Your task to perform on an android device: Open Reddit.com Image 0: 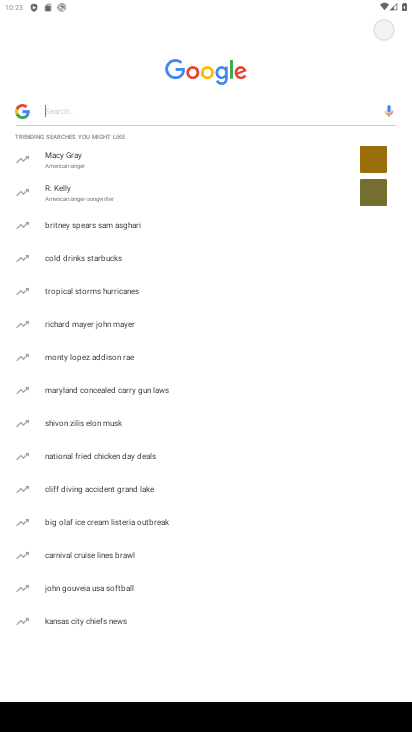
Step 0: press back button
Your task to perform on an android device: Open Reddit.com Image 1: 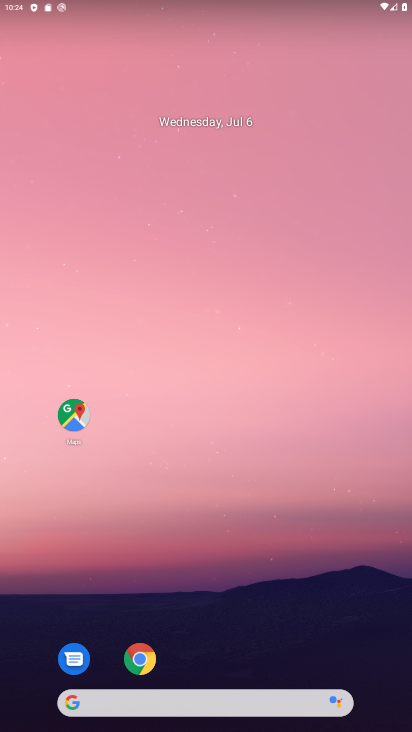
Step 1: click (146, 657)
Your task to perform on an android device: Open Reddit.com Image 2: 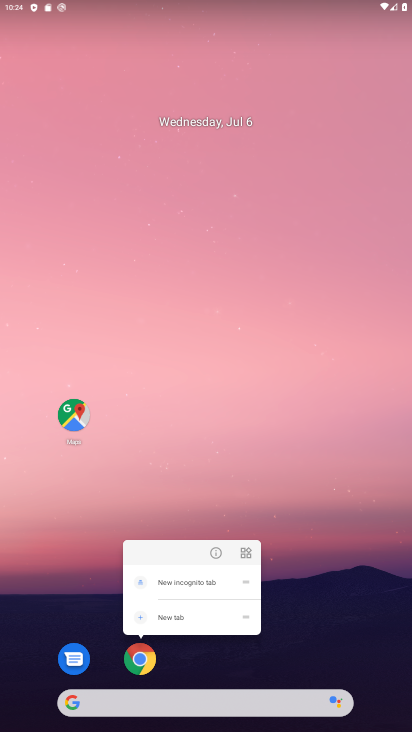
Step 2: click (151, 653)
Your task to perform on an android device: Open Reddit.com Image 3: 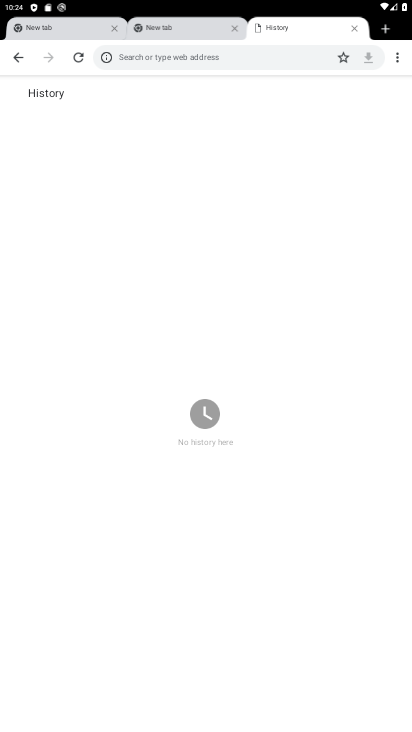
Step 3: press back button
Your task to perform on an android device: Open Reddit.com Image 4: 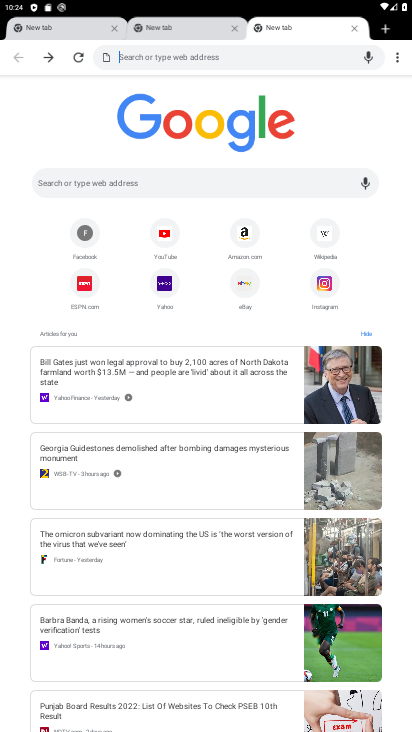
Step 4: click (98, 185)
Your task to perform on an android device: Open Reddit.com Image 5: 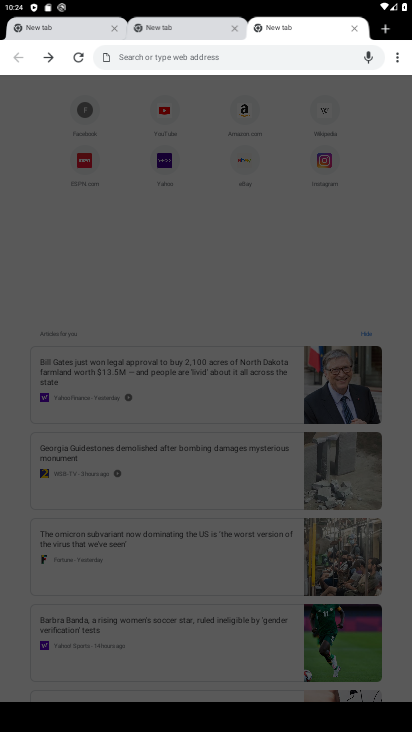
Step 5: type "reddit.com"
Your task to perform on an android device: Open Reddit.com Image 6: 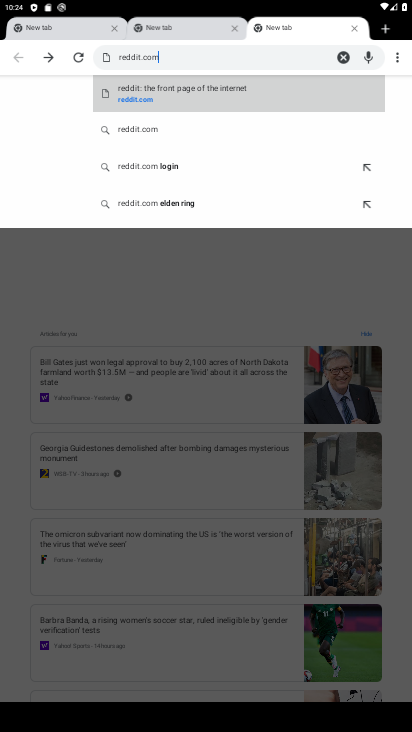
Step 6: click (136, 89)
Your task to perform on an android device: Open Reddit.com Image 7: 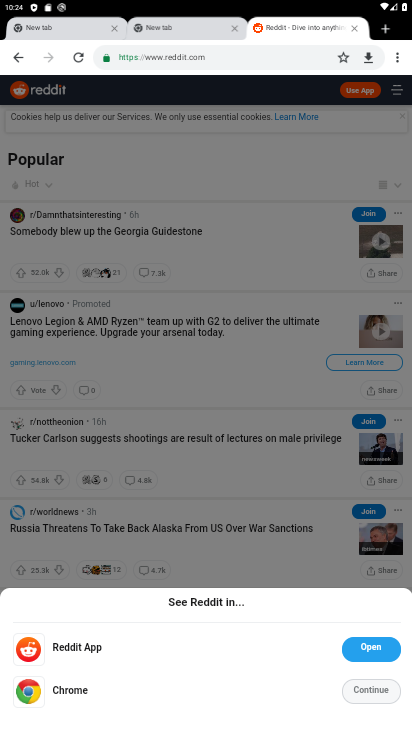
Step 7: click (222, 296)
Your task to perform on an android device: Open Reddit.com Image 8: 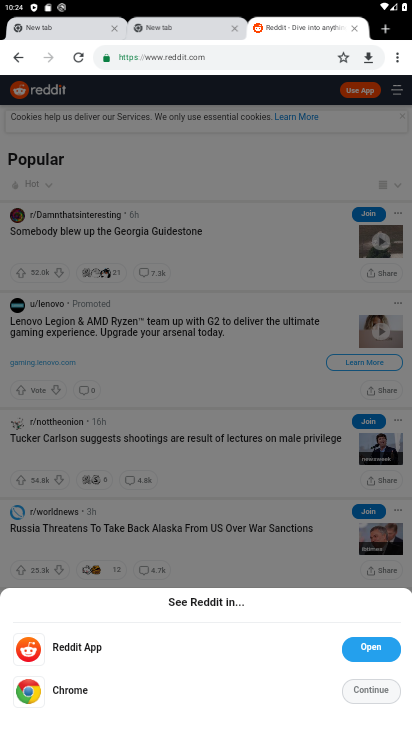
Step 8: task complete